Your task to perform on an android device: Open notification settings Image 0: 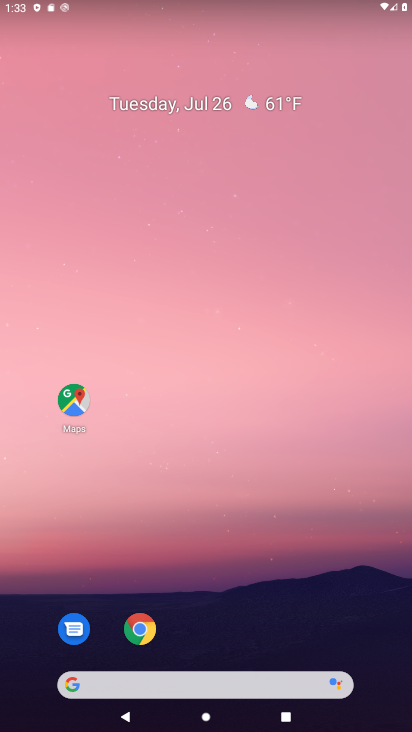
Step 0: drag from (225, 527) to (182, 74)
Your task to perform on an android device: Open notification settings Image 1: 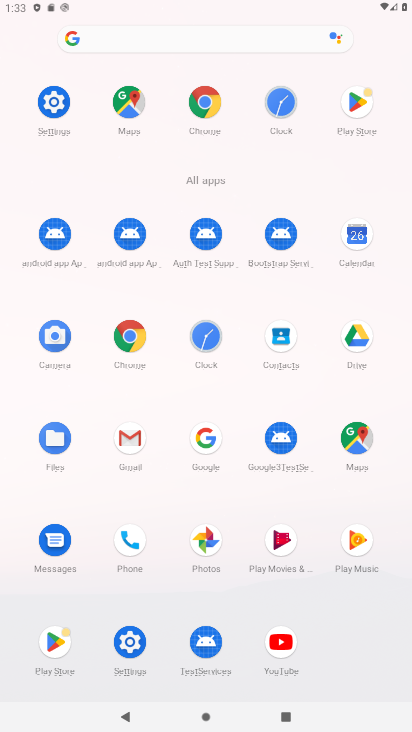
Step 1: click (69, 96)
Your task to perform on an android device: Open notification settings Image 2: 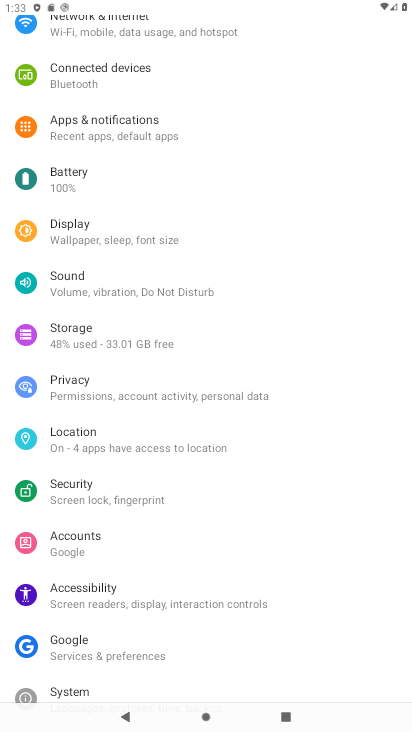
Step 2: click (143, 127)
Your task to perform on an android device: Open notification settings Image 3: 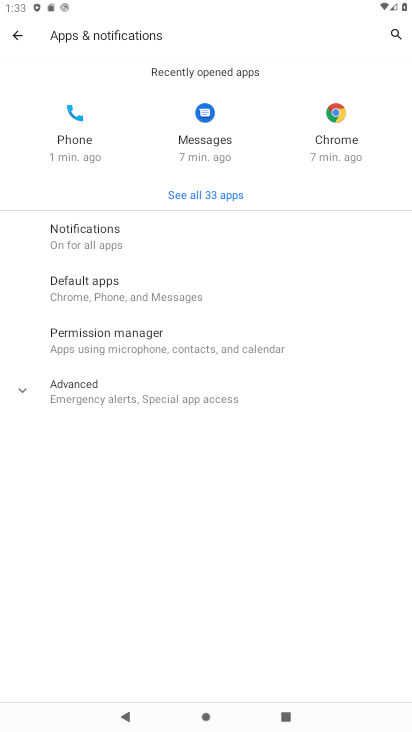
Step 3: task complete